Your task to perform on an android device: delete a single message in the gmail app Image 0: 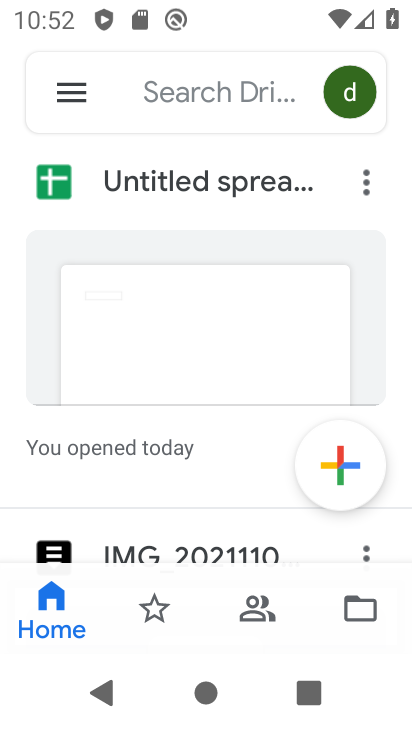
Step 0: press home button
Your task to perform on an android device: delete a single message in the gmail app Image 1: 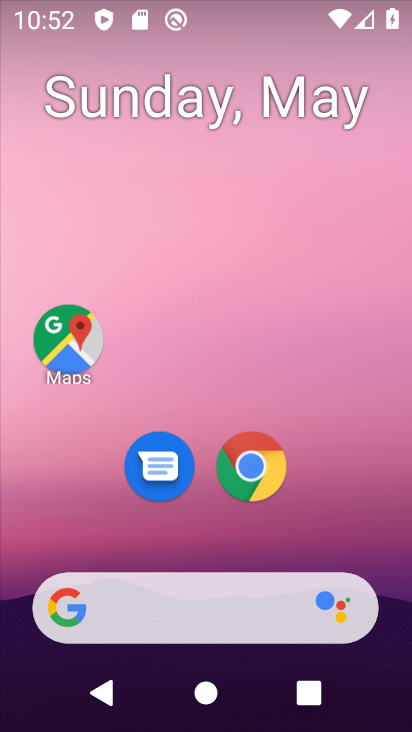
Step 1: drag from (62, 545) to (153, 170)
Your task to perform on an android device: delete a single message in the gmail app Image 2: 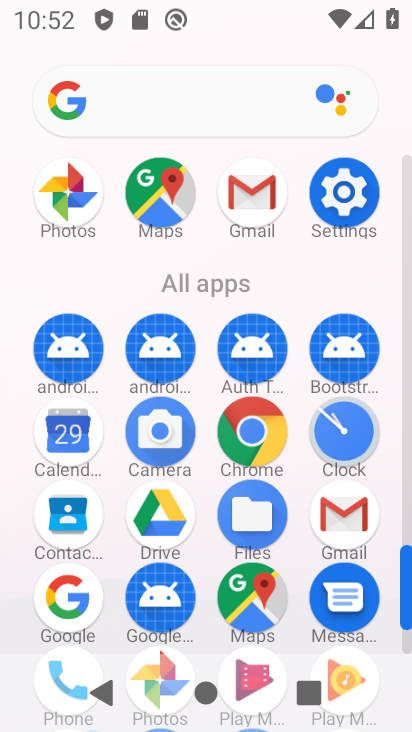
Step 2: click (348, 524)
Your task to perform on an android device: delete a single message in the gmail app Image 3: 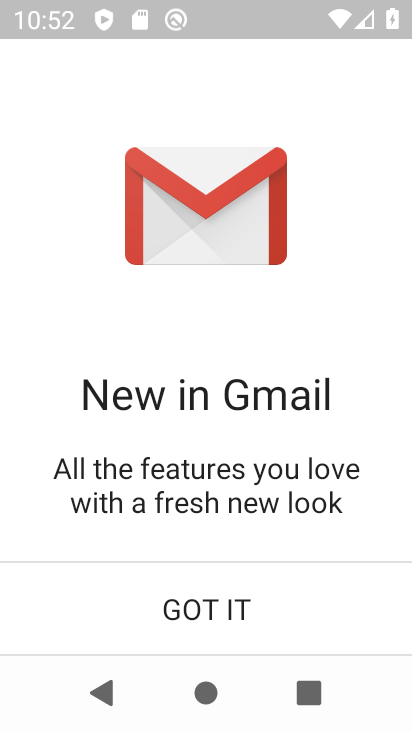
Step 3: click (286, 611)
Your task to perform on an android device: delete a single message in the gmail app Image 4: 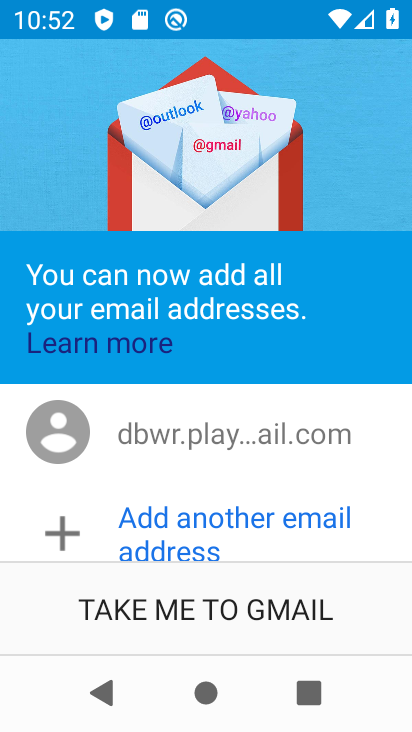
Step 4: click (286, 614)
Your task to perform on an android device: delete a single message in the gmail app Image 5: 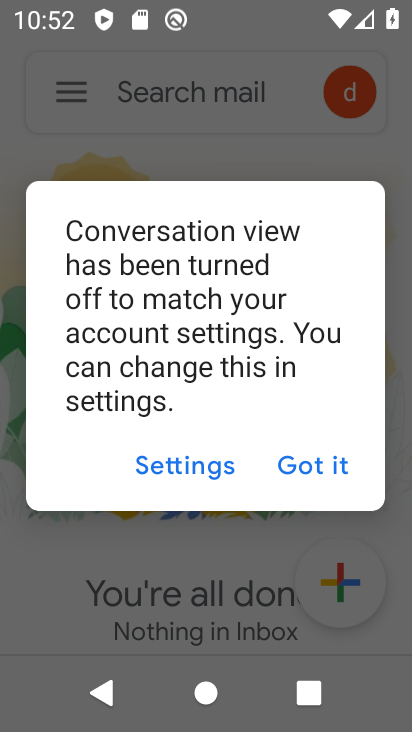
Step 5: click (346, 518)
Your task to perform on an android device: delete a single message in the gmail app Image 6: 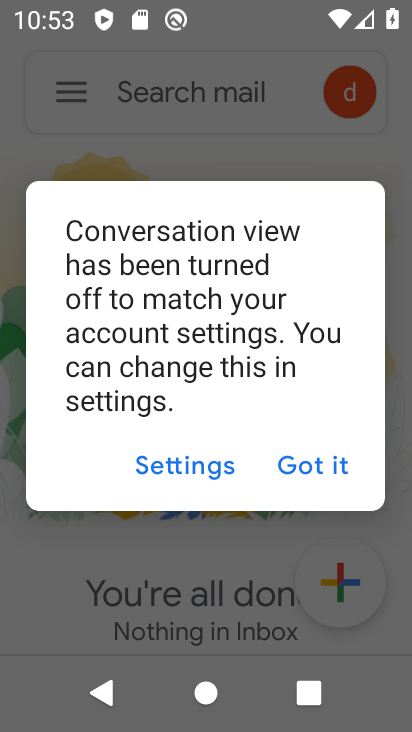
Step 6: click (320, 470)
Your task to perform on an android device: delete a single message in the gmail app Image 7: 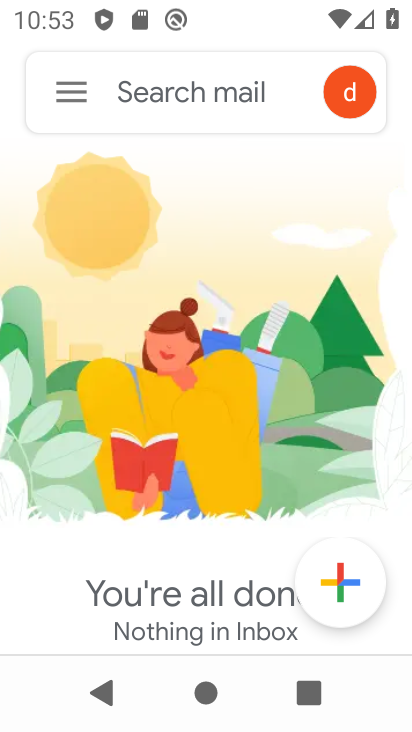
Step 7: click (46, 71)
Your task to perform on an android device: delete a single message in the gmail app Image 8: 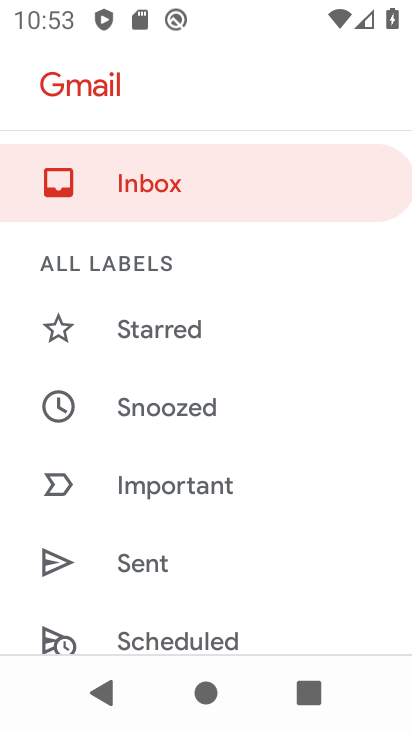
Step 8: drag from (142, 556) to (267, 138)
Your task to perform on an android device: delete a single message in the gmail app Image 9: 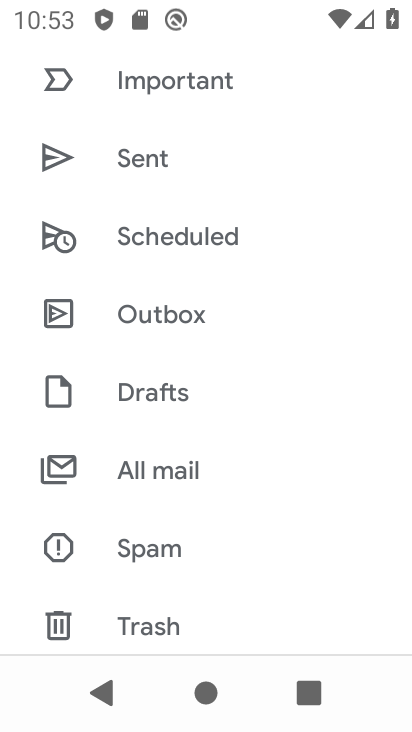
Step 9: drag from (213, 559) to (287, 313)
Your task to perform on an android device: delete a single message in the gmail app Image 10: 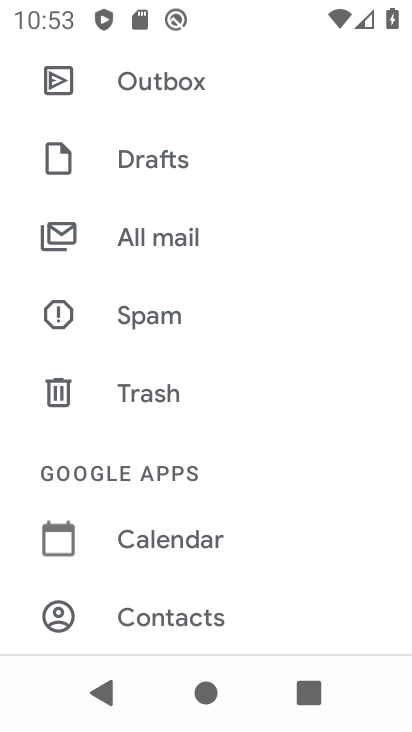
Step 10: click (254, 228)
Your task to perform on an android device: delete a single message in the gmail app Image 11: 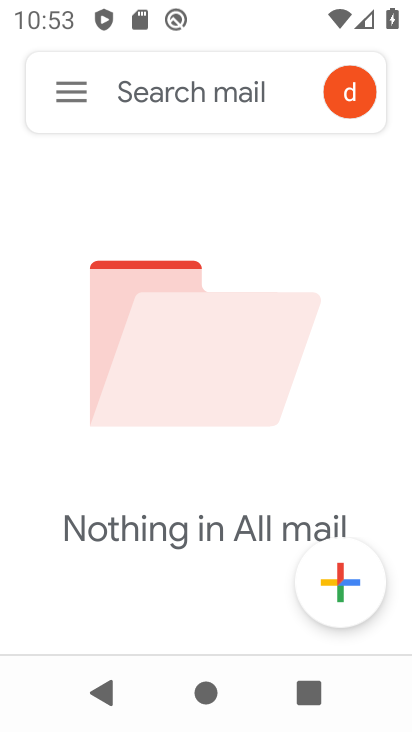
Step 11: task complete